Your task to perform on an android device: remove spam from my inbox in the gmail app Image 0: 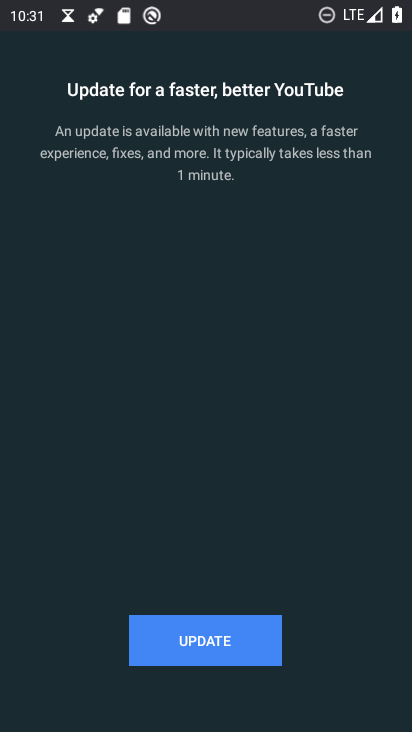
Step 0: press home button
Your task to perform on an android device: remove spam from my inbox in the gmail app Image 1: 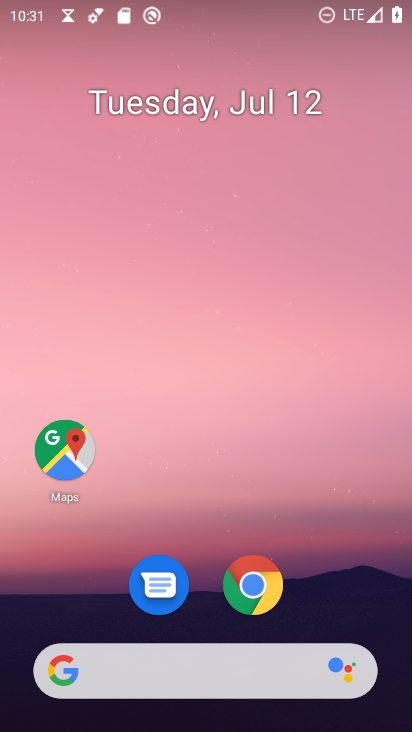
Step 1: drag from (168, 659) to (211, 34)
Your task to perform on an android device: remove spam from my inbox in the gmail app Image 2: 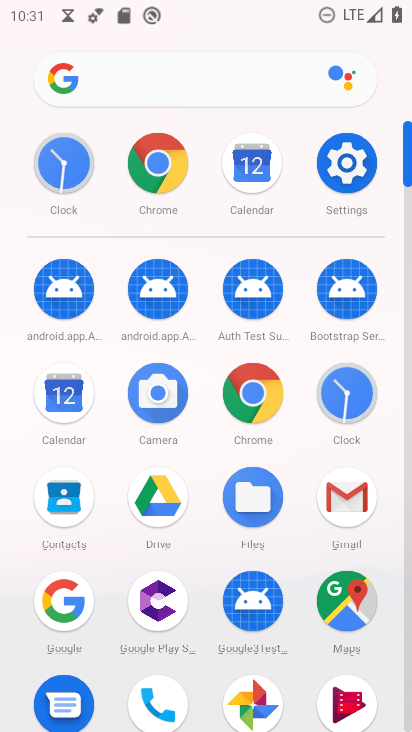
Step 2: click (345, 500)
Your task to perform on an android device: remove spam from my inbox in the gmail app Image 3: 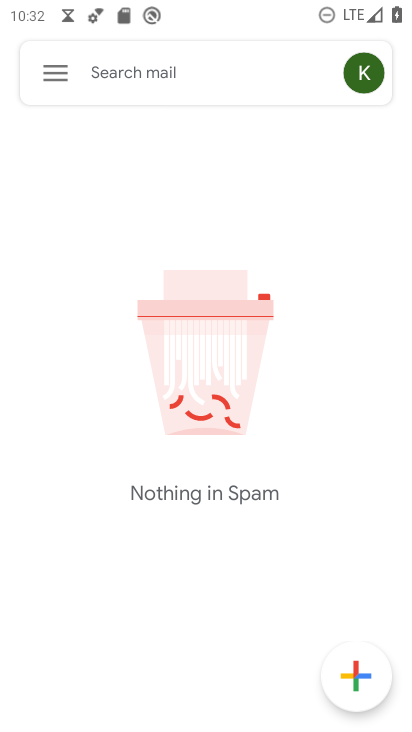
Step 3: task complete